Your task to perform on an android device: read, delete, or share a saved page in the chrome app Image 0: 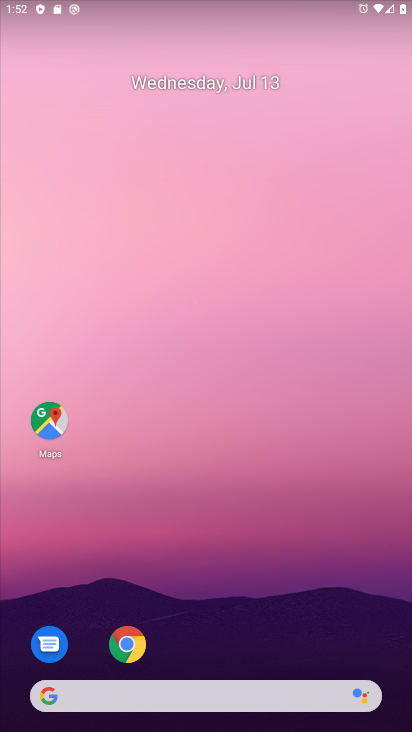
Step 0: click (126, 644)
Your task to perform on an android device: read, delete, or share a saved page in the chrome app Image 1: 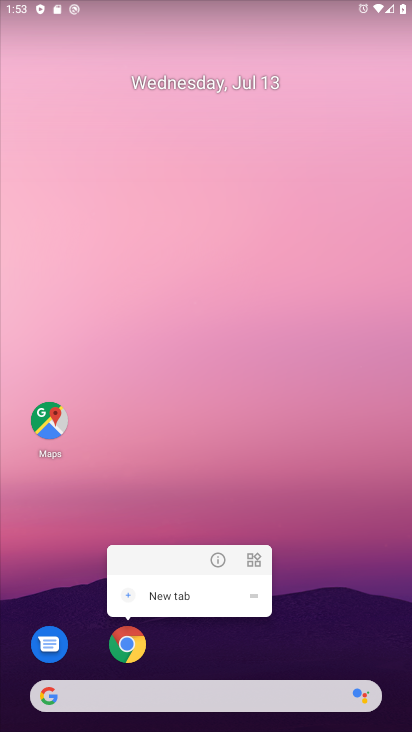
Step 1: click (127, 647)
Your task to perform on an android device: read, delete, or share a saved page in the chrome app Image 2: 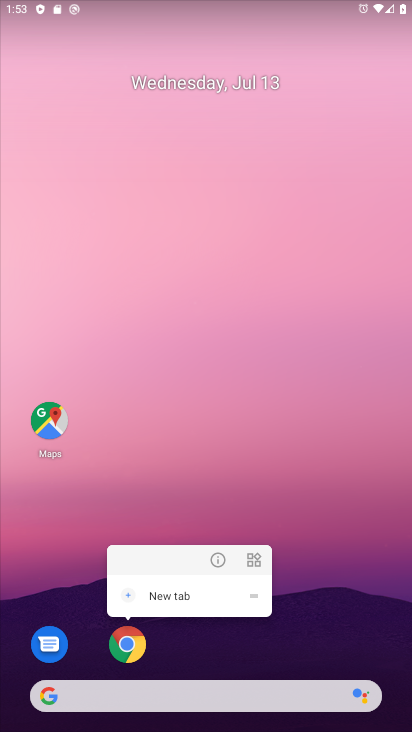
Step 2: click (130, 652)
Your task to perform on an android device: read, delete, or share a saved page in the chrome app Image 3: 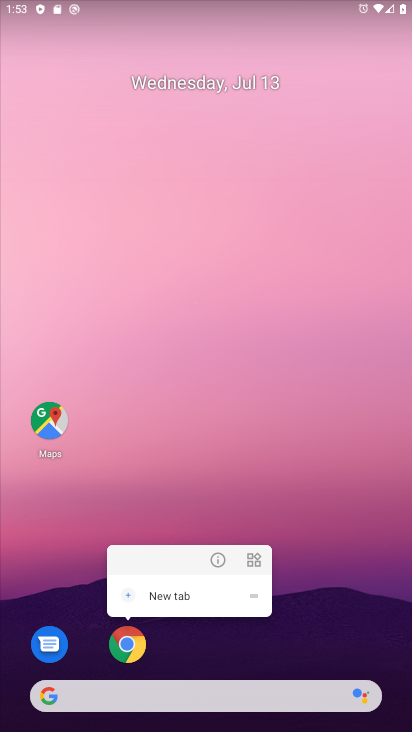
Step 3: click (130, 652)
Your task to perform on an android device: read, delete, or share a saved page in the chrome app Image 4: 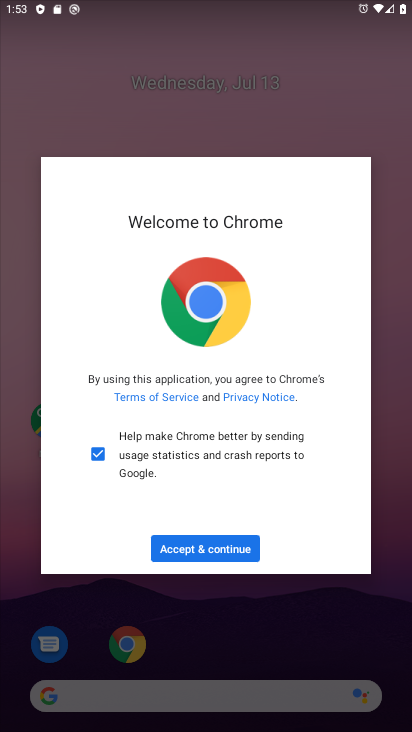
Step 4: click (214, 554)
Your task to perform on an android device: read, delete, or share a saved page in the chrome app Image 5: 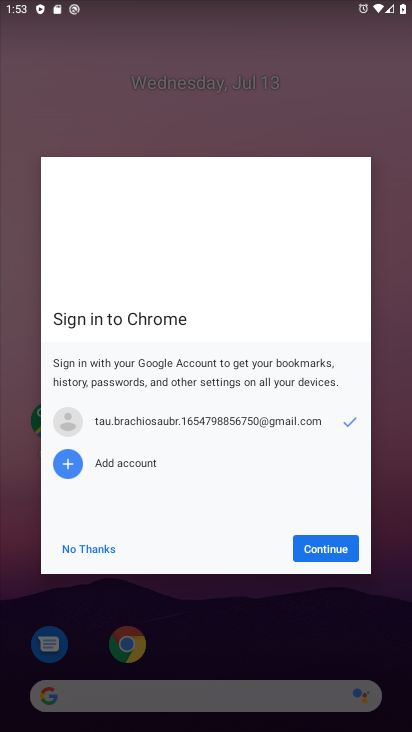
Step 5: click (309, 542)
Your task to perform on an android device: read, delete, or share a saved page in the chrome app Image 6: 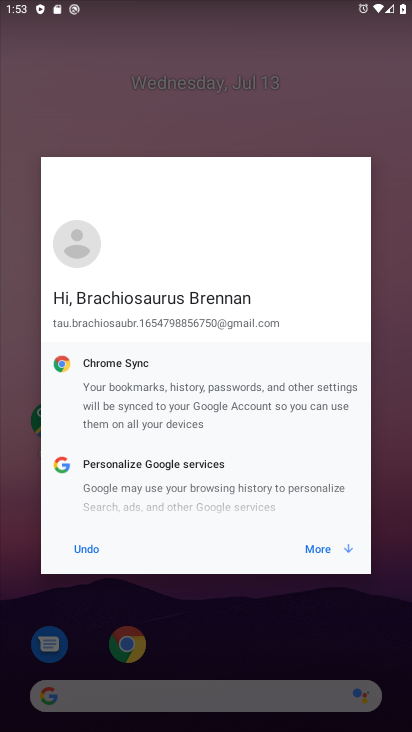
Step 6: click (320, 543)
Your task to perform on an android device: read, delete, or share a saved page in the chrome app Image 7: 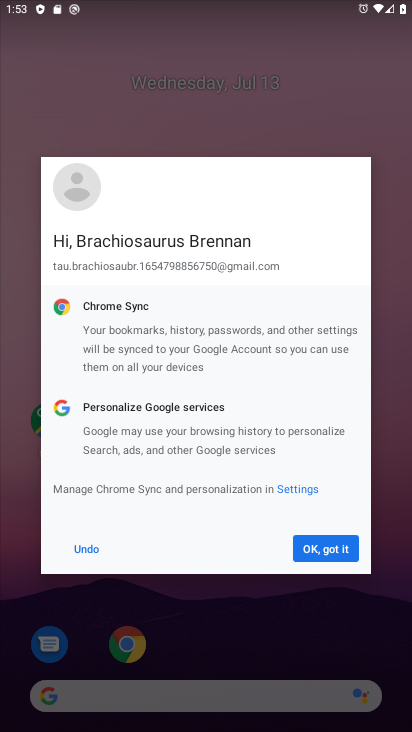
Step 7: click (320, 543)
Your task to perform on an android device: read, delete, or share a saved page in the chrome app Image 8: 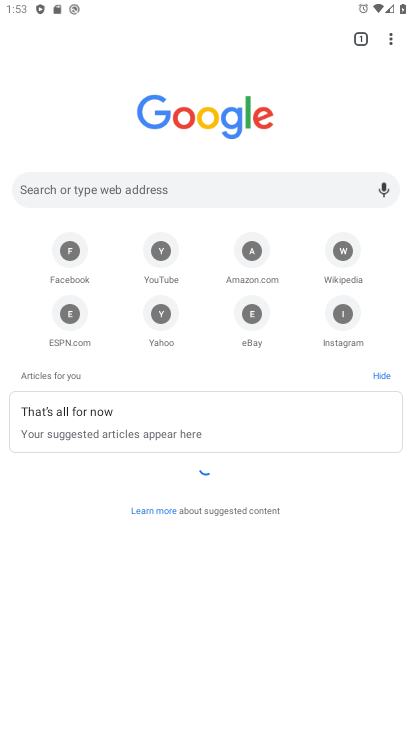
Step 8: task complete